Your task to perform on an android device: Open wifi settings Image 0: 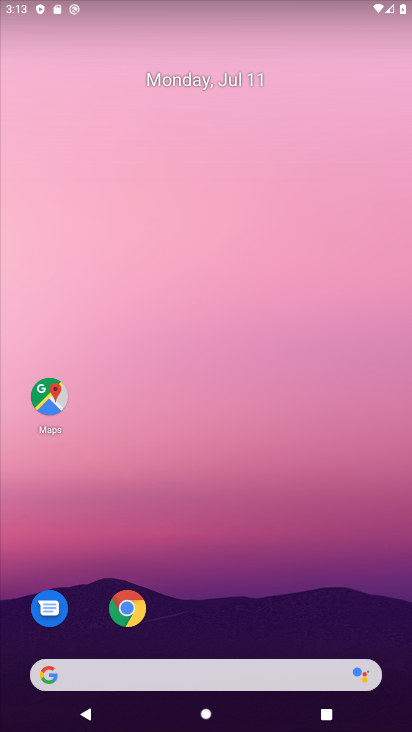
Step 0: drag from (226, 642) to (168, 31)
Your task to perform on an android device: Open wifi settings Image 1: 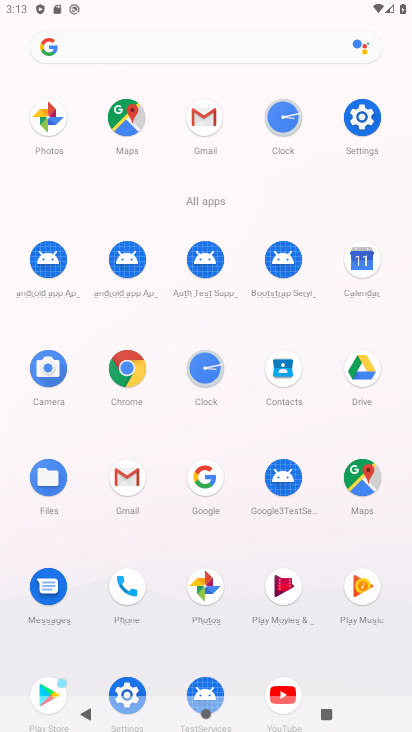
Step 1: click (364, 117)
Your task to perform on an android device: Open wifi settings Image 2: 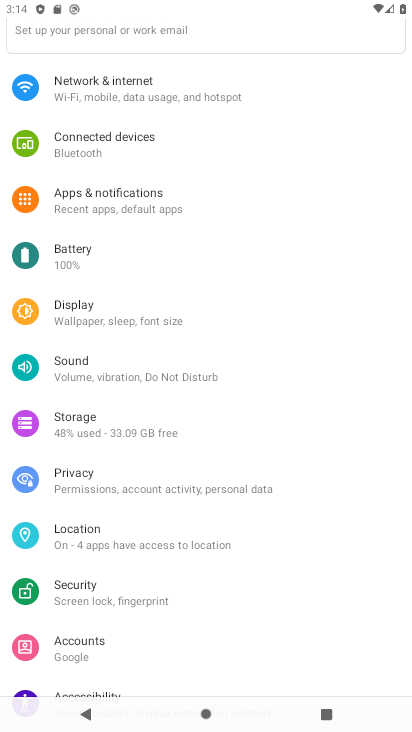
Step 2: click (116, 97)
Your task to perform on an android device: Open wifi settings Image 3: 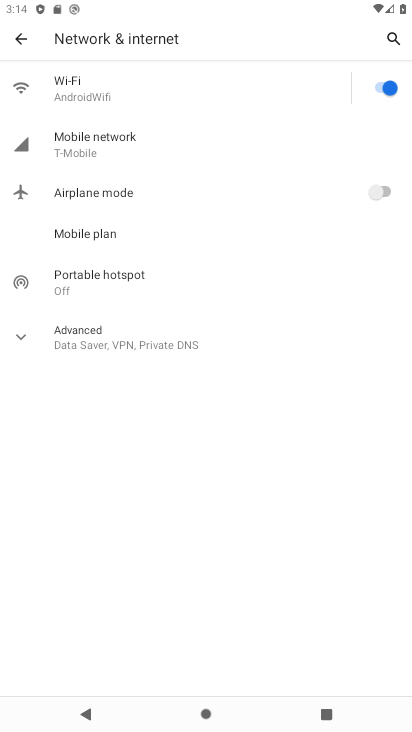
Step 3: click (102, 90)
Your task to perform on an android device: Open wifi settings Image 4: 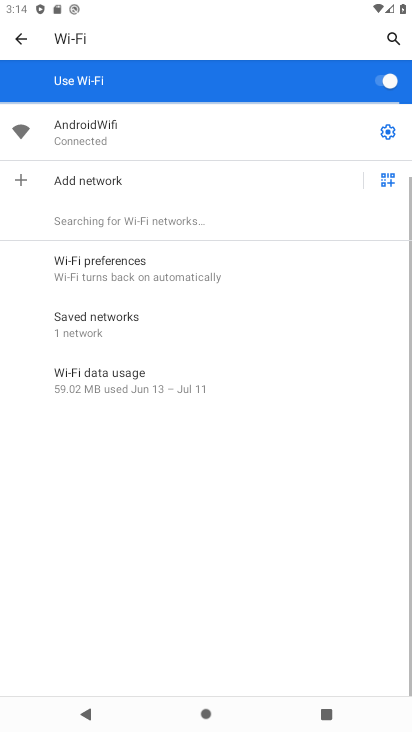
Step 4: click (387, 135)
Your task to perform on an android device: Open wifi settings Image 5: 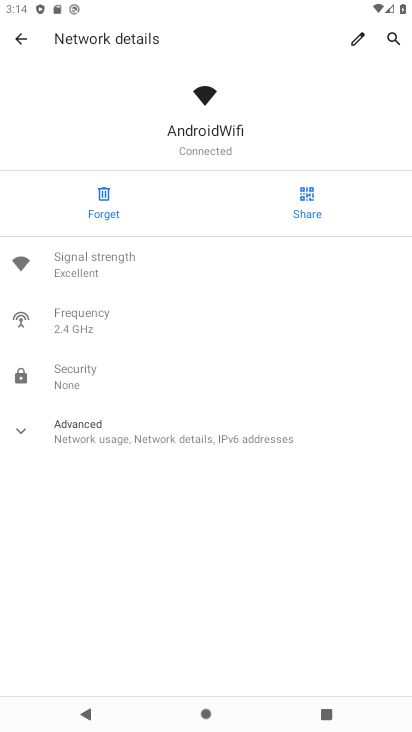
Step 5: task complete